Your task to perform on an android device: open app "Instagram" (install if not already installed) Image 0: 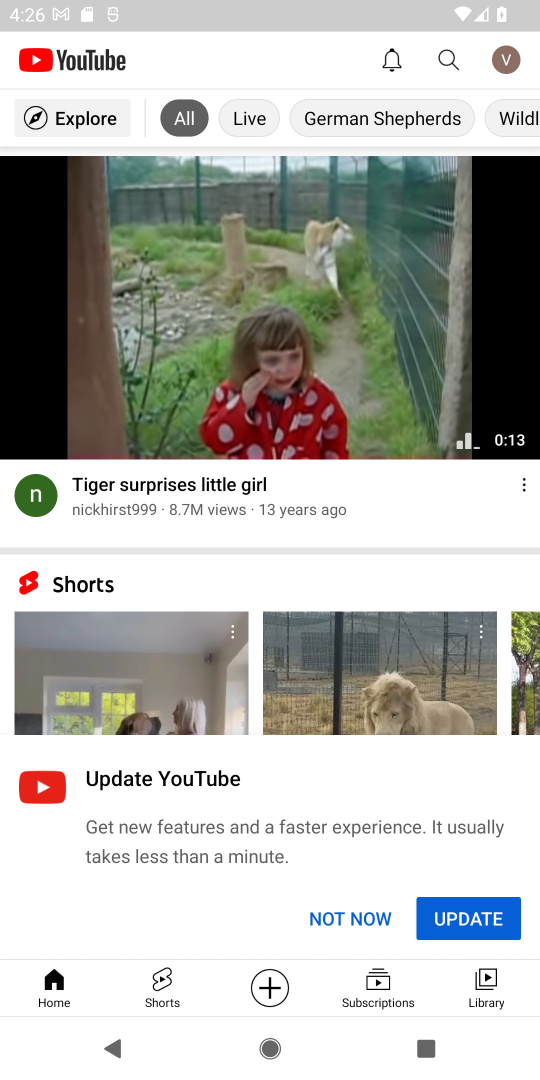
Step 0: press home button
Your task to perform on an android device: open app "Instagram" (install if not already installed) Image 1: 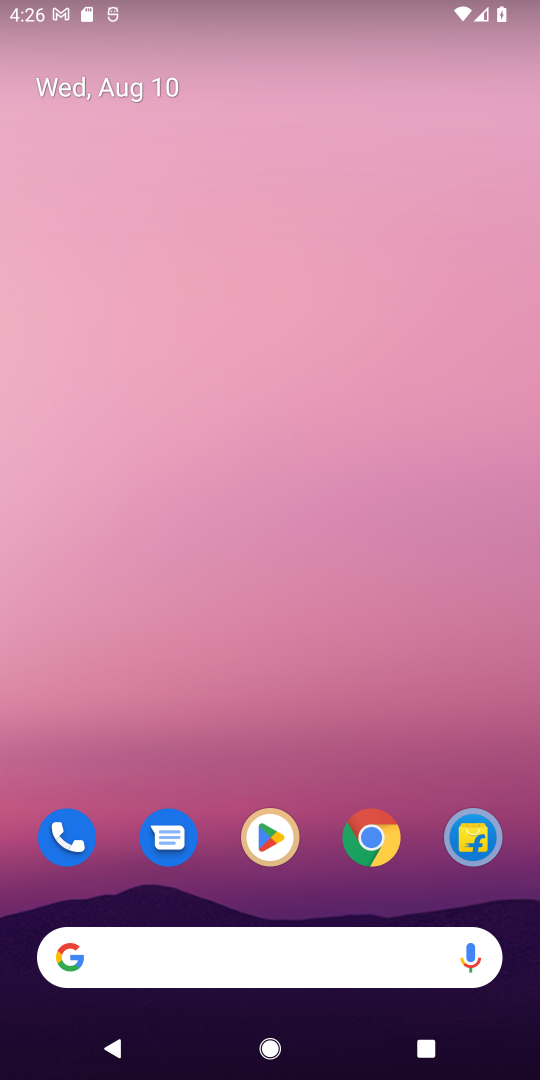
Step 1: click (266, 843)
Your task to perform on an android device: open app "Instagram" (install if not already installed) Image 2: 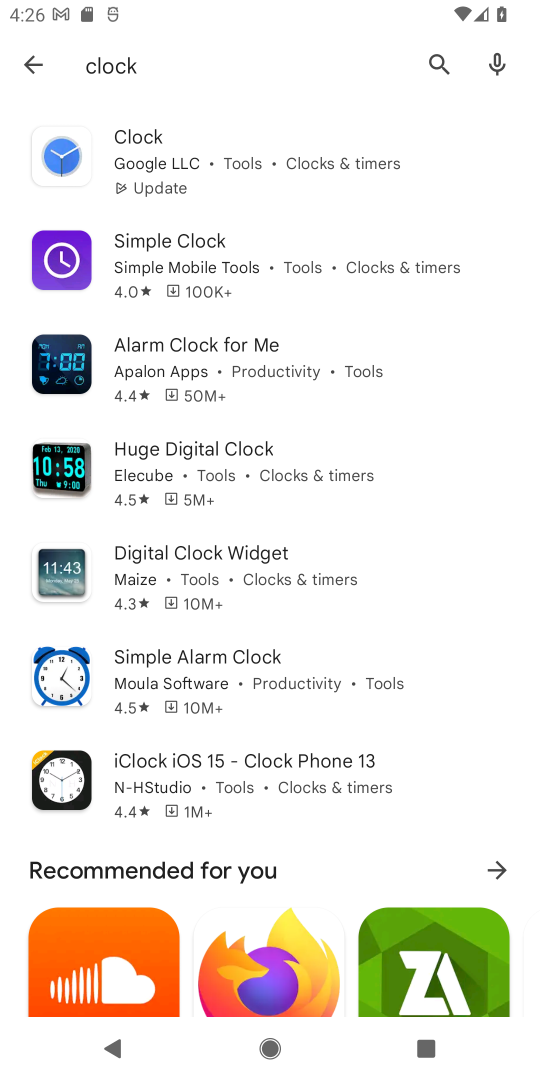
Step 2: click (434, 58)
Your task to perform on an android device: open app "Instagram" (install if not already installed) Image 3: 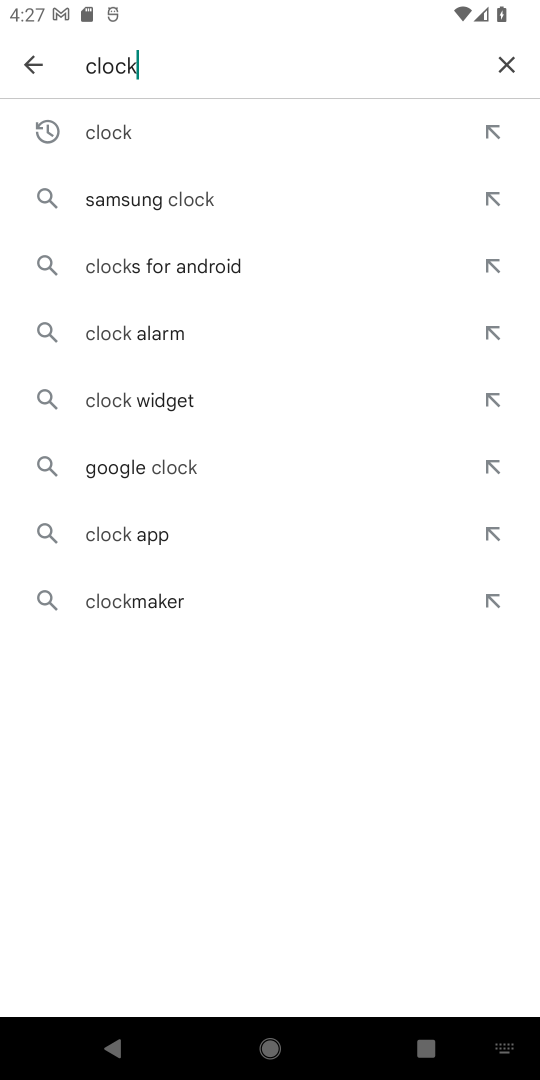
Step 3: click (503, 59)
Your task to perform on an android device: open app "Instagram" (install if not already installed) Image 4: 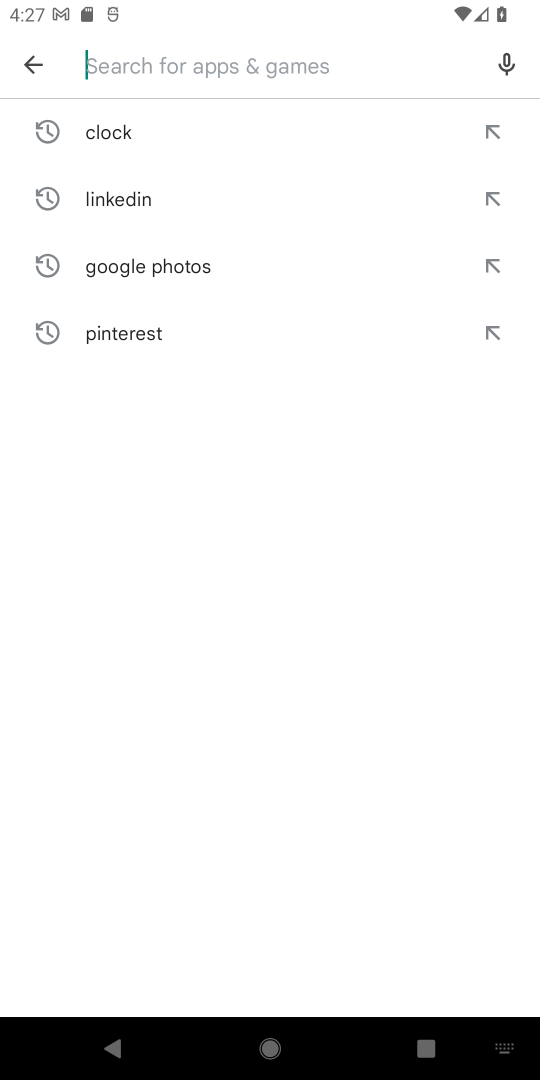
Step 4: type "Instagram"
Your task to perform on an android device: open app "Instagram" (install if not already installed) Image 5: 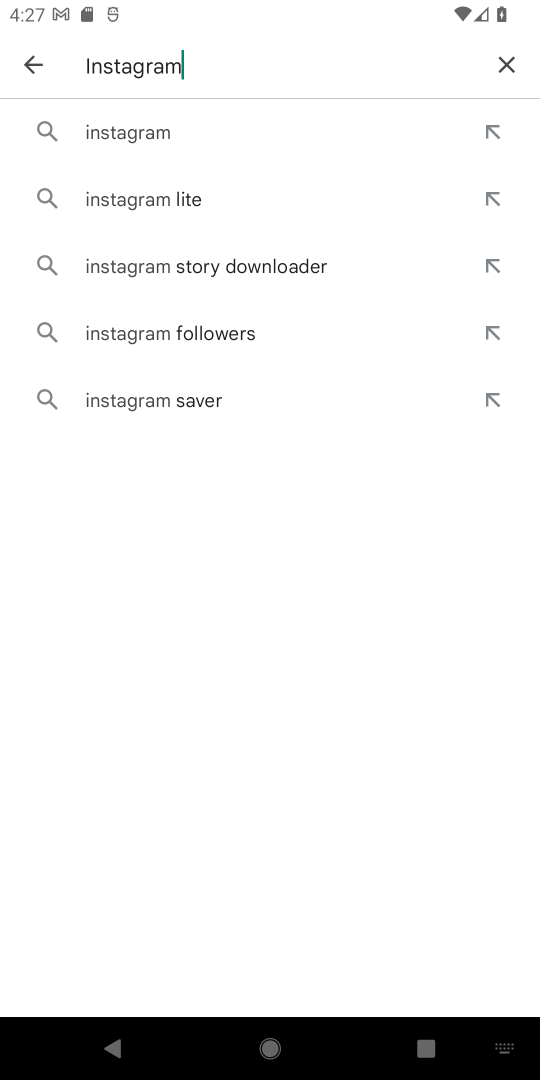
Step 5: click (91, 129)
Your task to perform on an android device: open app "Instagram" (install if not already installed) Image 6: 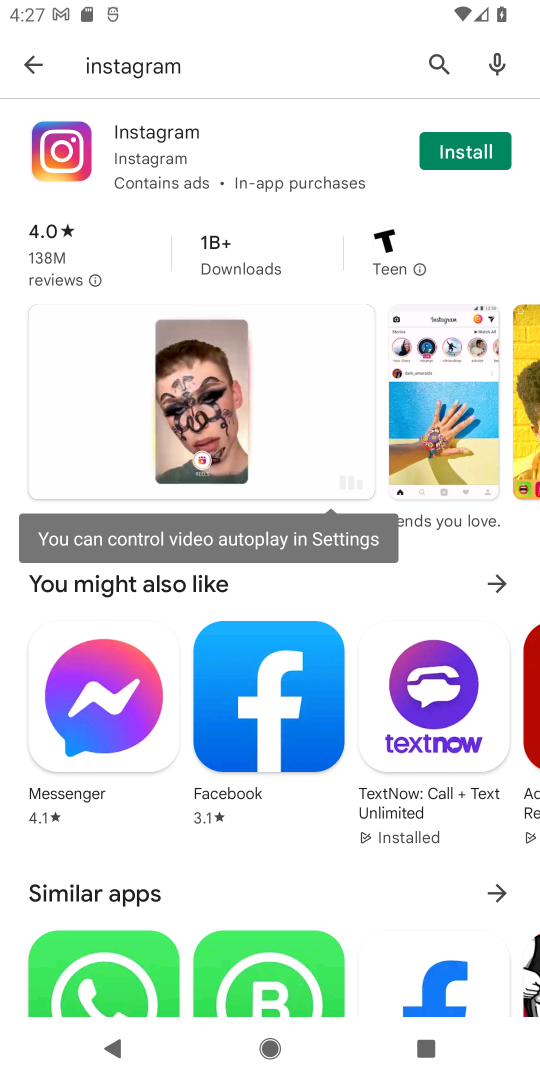
Step 6: click (474, 136)
Your task to perform on an android device: open app "Instagram" (install if not already installed) Image 7: 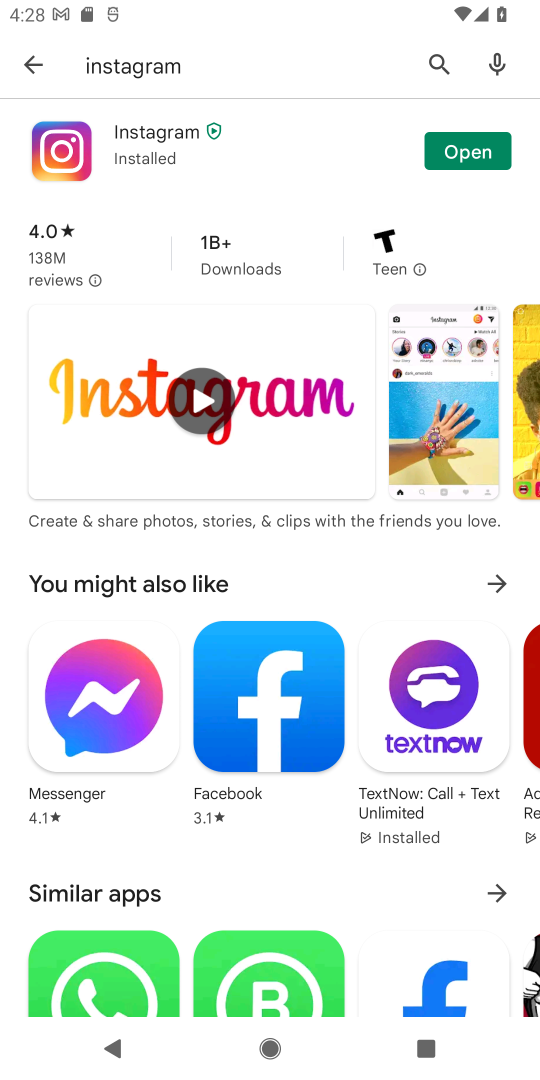
Step 7: click (486, 162)
Your task to perform on an android device: open app "Instagram" (install if not already installed) Image 8: 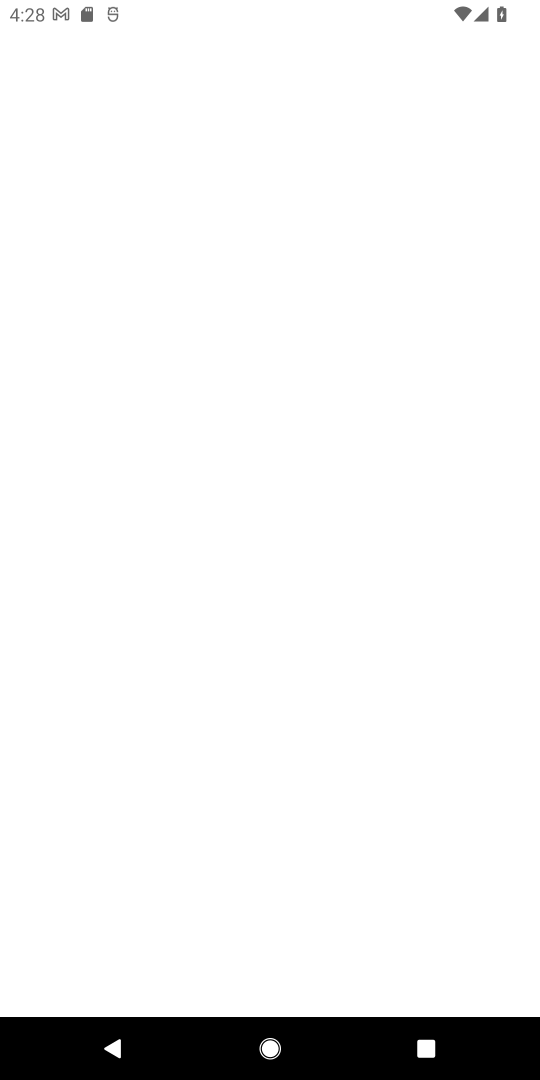
Step 8: task complete